Your task to perform on an android device: What is the news today? Image 0: 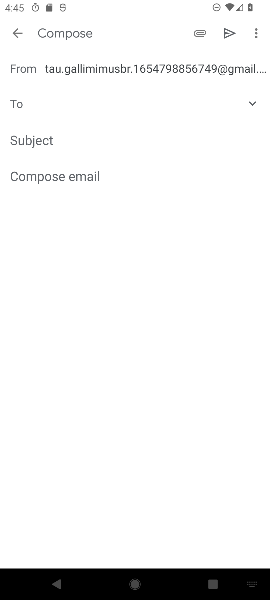
Step 0: press home button
Your task to perform on an android device: What is the news today? Image 1: 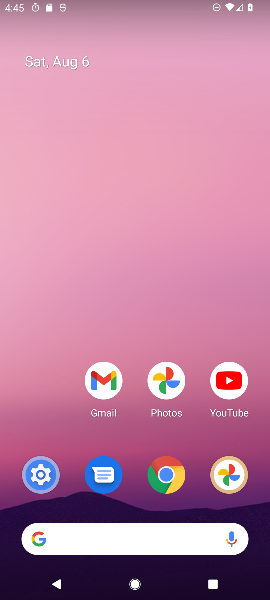
Step 1: click (64, 543)
Your task to perform on an android device: What is the news today? Image 2: 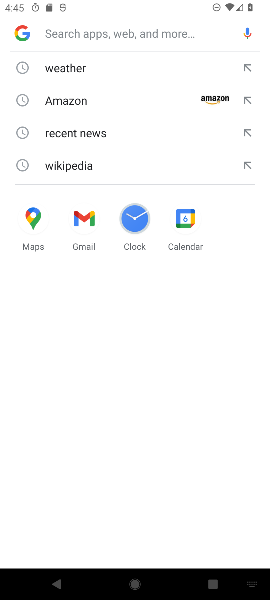
Step 2: type "What is the news today?"
Your task to perform on an android device: What is the news today? Image 3: 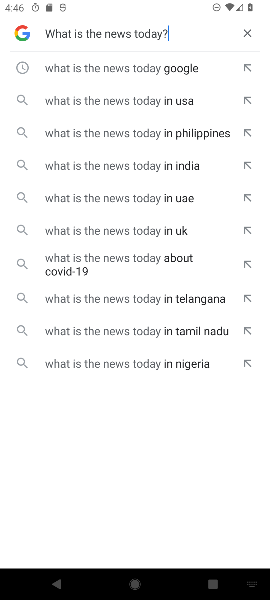
Step 3: type ""
Your task to perform on an android device: What is the news today? Image 4: 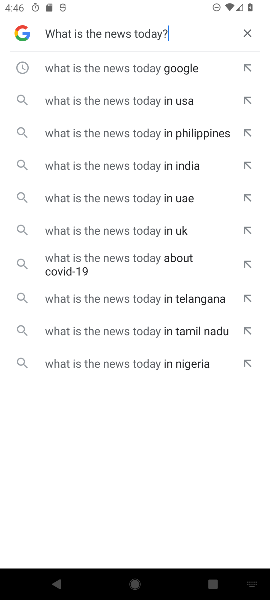
Step 4: type ""
Your task to perform on an android device: What is the news today? Image 5: 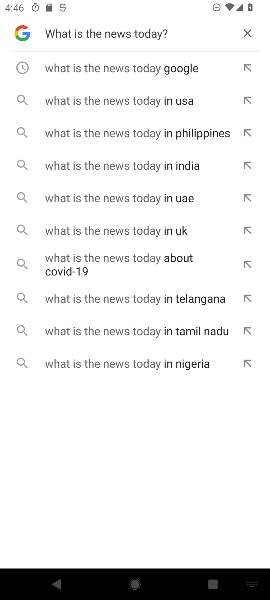
Step 5: task complete